Your task to perform on an android device: add a contact Image 0: 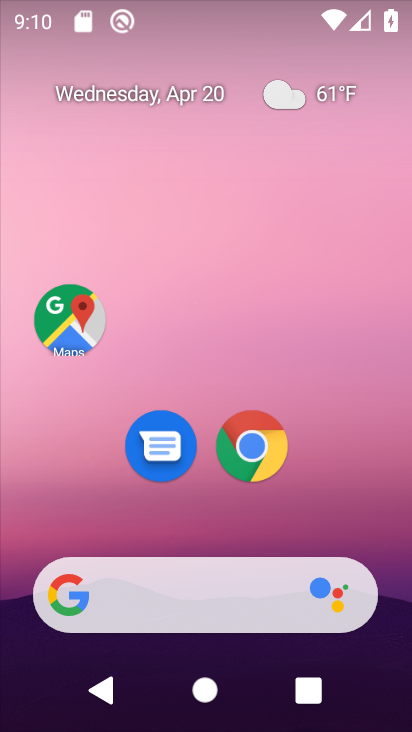
Step 0: drag from (344, 483) to (382, 135)
Your task to perform on an android device: add a contact Image 1: 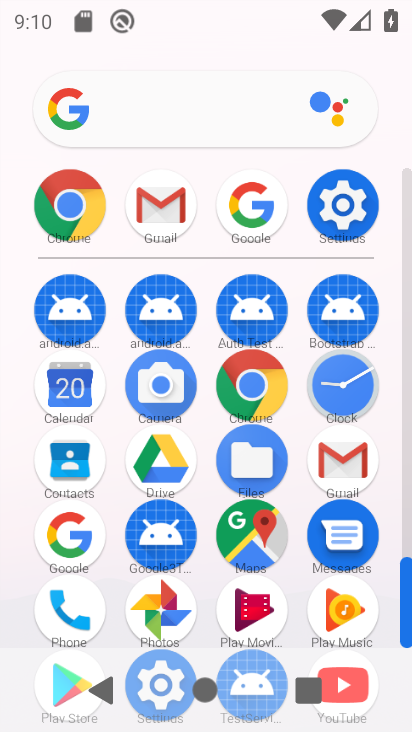
Step 1: click (76, 464)
Your task to perform on an android device: add a contact Image 2: 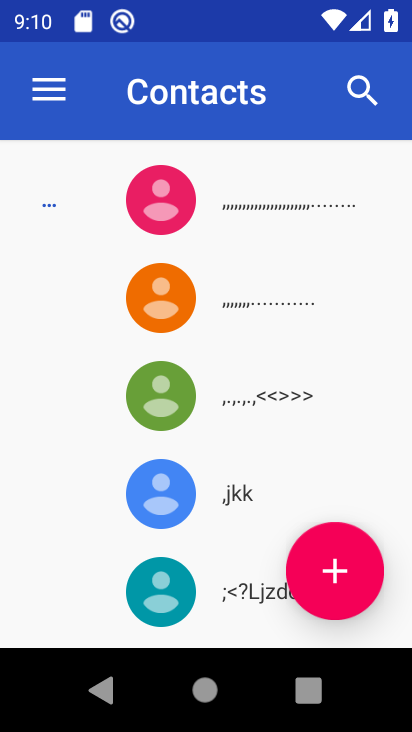
Step 2: click (347, 595)
Your task to perform on an android device: add a contact Image 3: 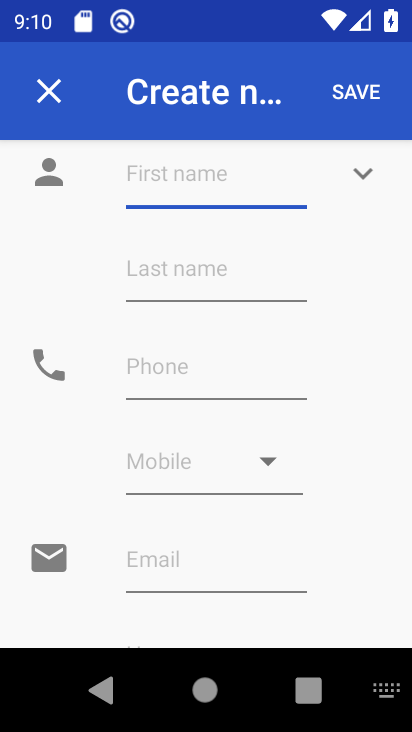
Step 3: click (183, 177)
Your task to perform on an android device: add a contact Image 4: 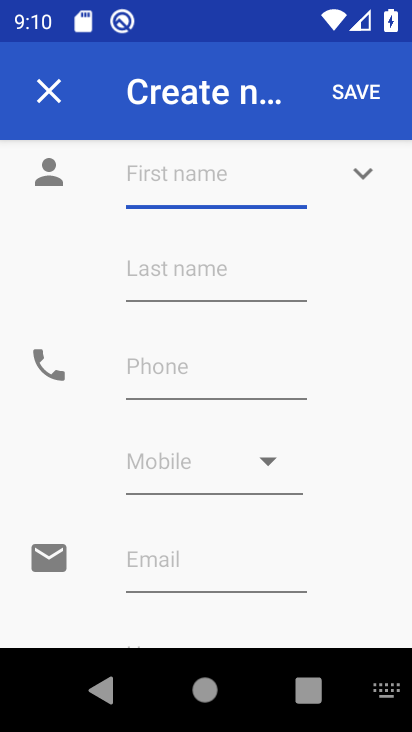
Step 4: type "salesh"
Your task to perform on an android device: add a contact Image 5: 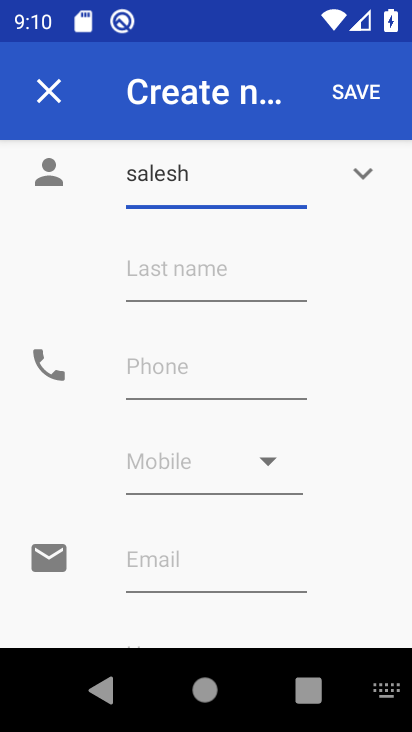
Step 5: click (199, 372)
Your task to perform on an android device: add a contact Image 6: 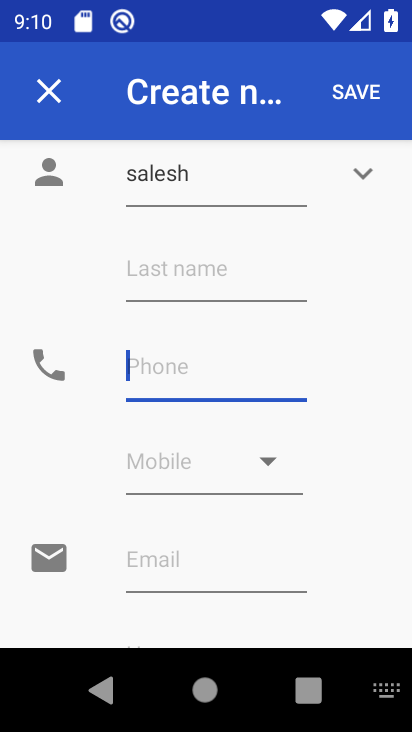
Step 6: type "884898239832"
Your task to perform on an android device: add a contact Image 7: 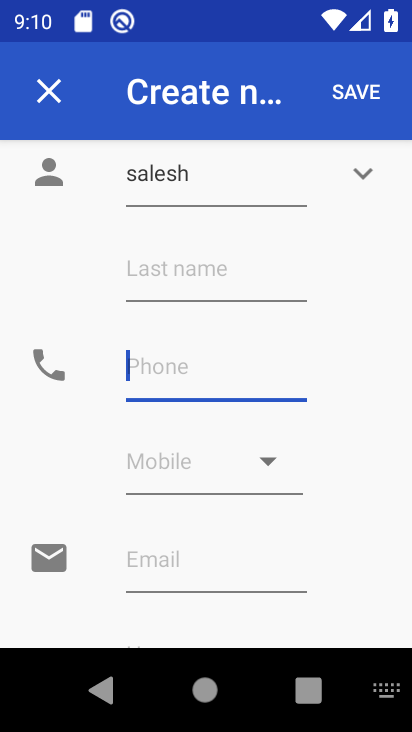
Step 7: click (367, 95)
Your task to perform on an android device: add a contact Image 8: 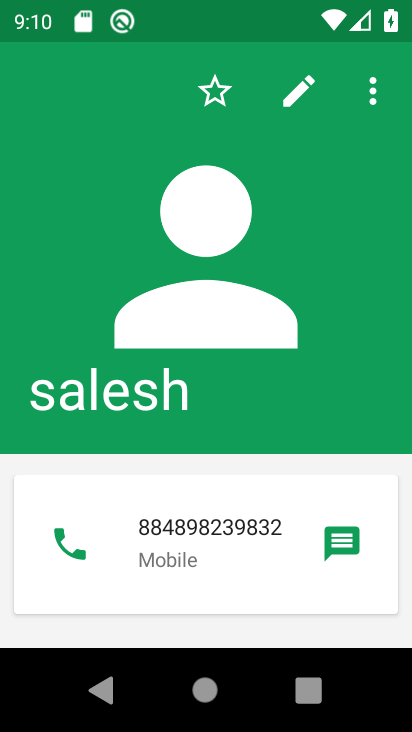
Step 8: task complete